Your task to perform on an android device: turn off notifications settings in the gmail app Image 0: 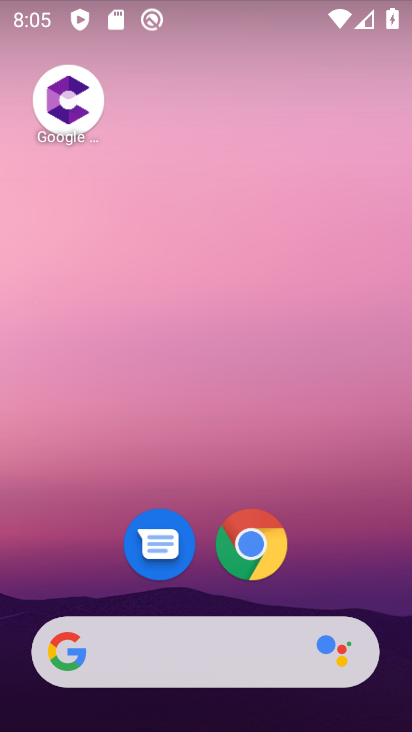
Step 0: drag from (371, 489) to (259, 10)
Your task to perform on an android device: turn off notifications settings in the gmail app Image 1: 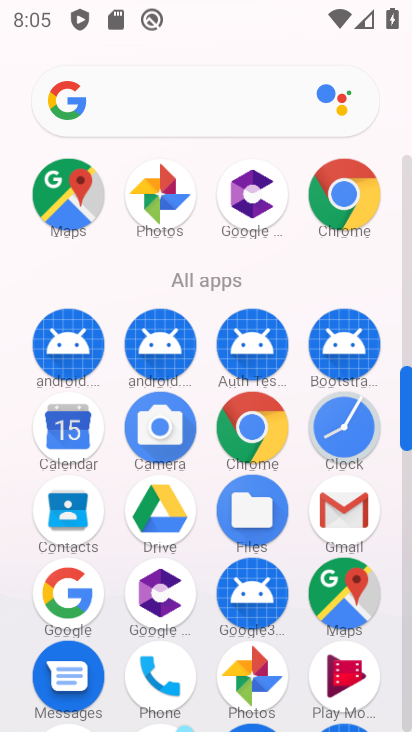
Step 1: click (348, 502)
Your task to perform on an android device: turn off notifications settings in the gmail app Image 2: 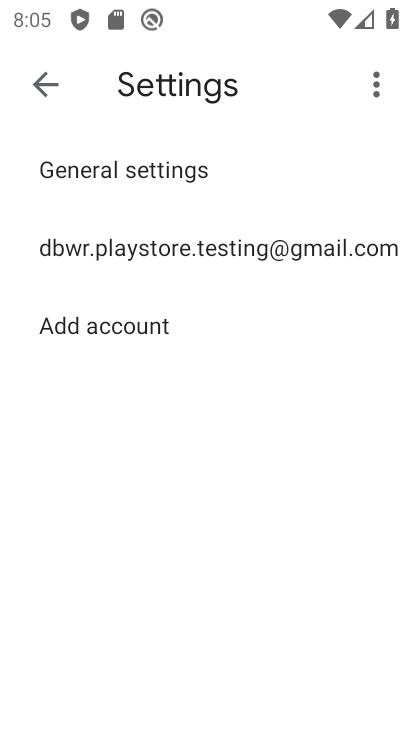
Step 2: click (205, 252)
Your task to perform on an android device: turn off notifications settings in the gmail app Image 3: 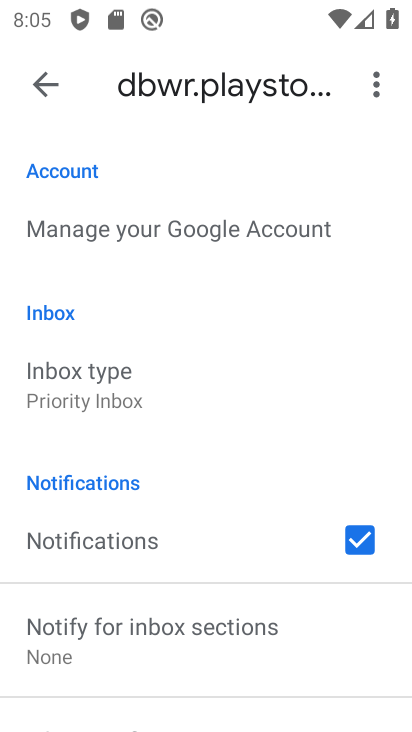
Step 3: drag from (178, 591) to (194, 72)
Your task to perform on an android device: turn off notifications settings in the gmail app Image 4: 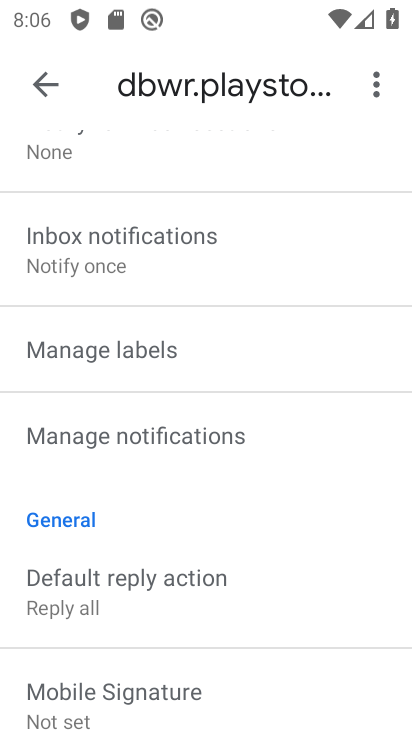
Step 4: click (148, 444)
Your task to perform on an android device: turn off notifications settings in the gmail app Image 5: 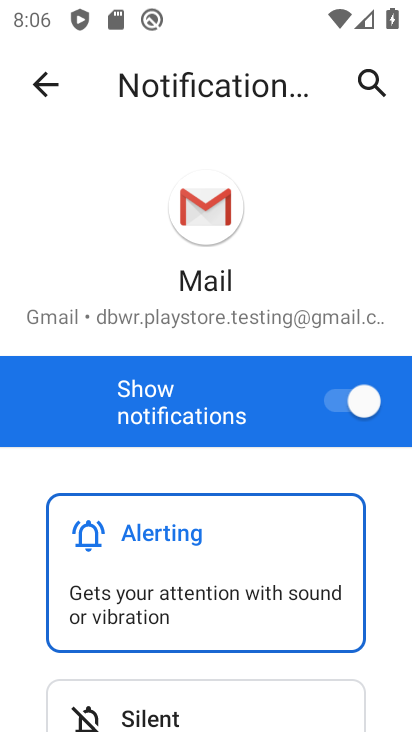
Step 5: click (377, 399)
Your task to perform on an android device: turn off notifications settings in the gmail app Image 6: 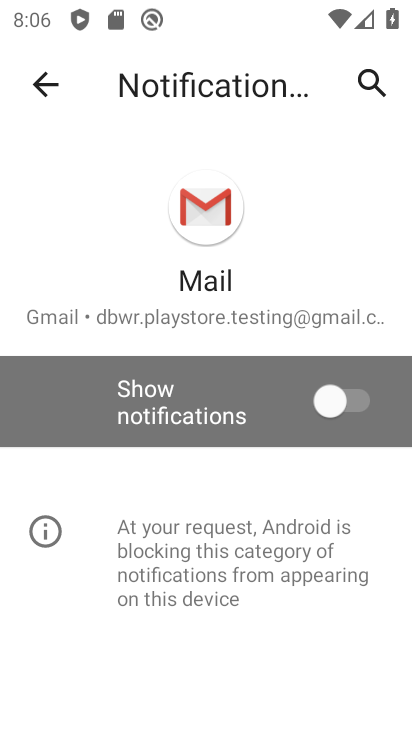
Step 6: task complete